Your task to perform on an android device: empty trash in the gmail app Image 0: 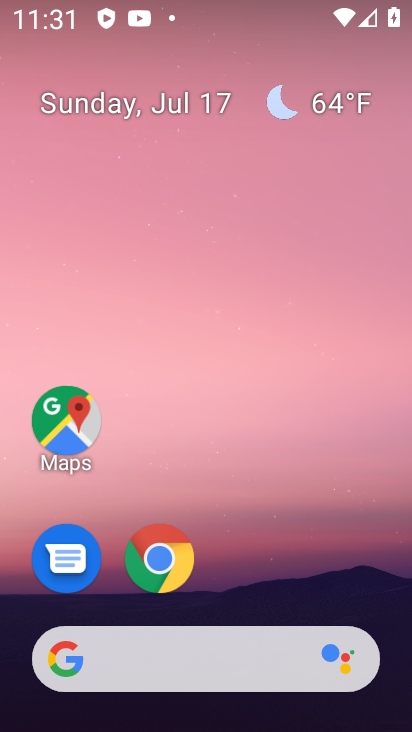
Step 0: drag from (360, 568) to (352, 85)
Your task to perform on an android device: empty trash in the gmail app Image 1: 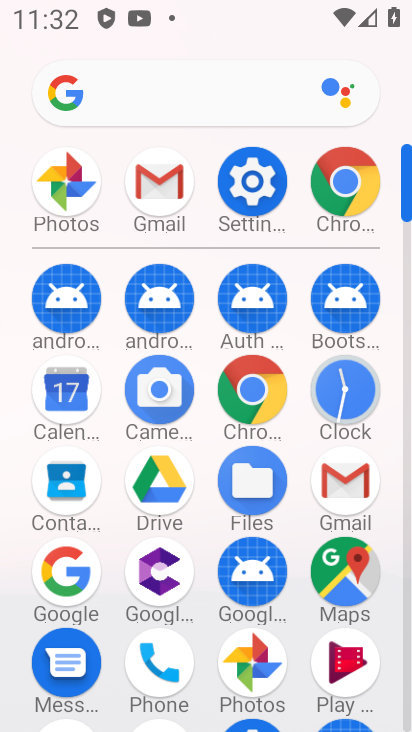
Step 1: click (344, 485)
Your task to perform on an android device: empty trash in the gmail app Image 2: 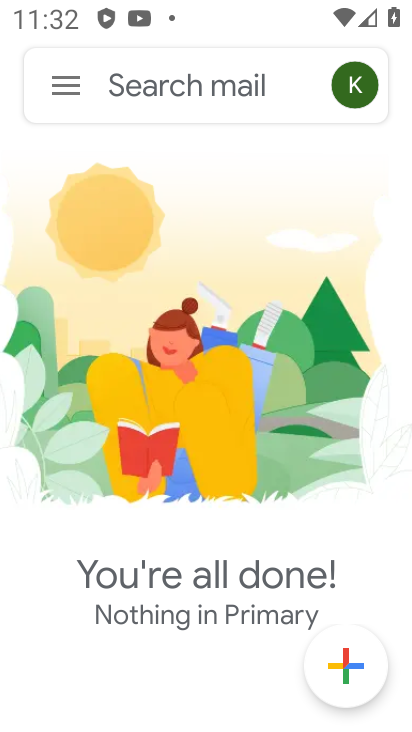
Step 2: click (70, 76)
Your task to perform on an android device: empty trash in the gmail app Image 3: 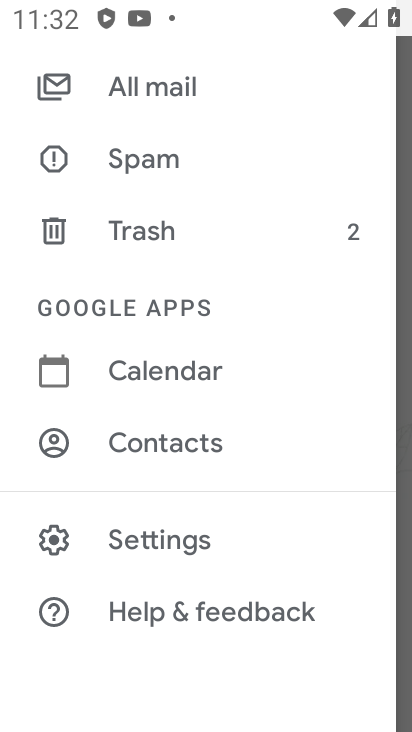
Step 3: drag from (277, 197) to (275, 303)
Your task to perform on an android device: empty trash in the gmail app Image 4: 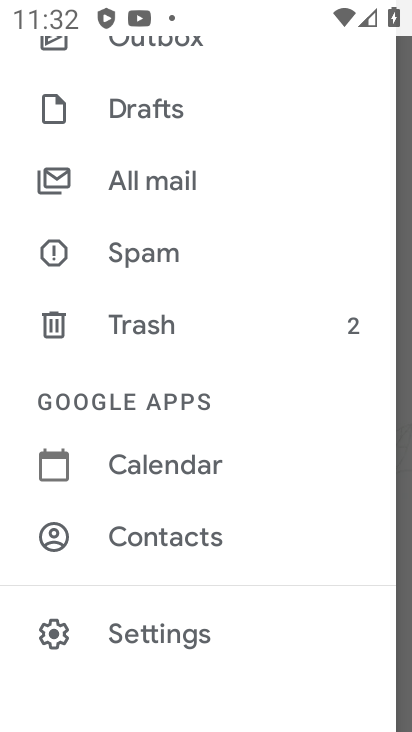
Step 4: drag from (280, 129) to (262, 289)
Your task to perform on an android device: empty trash in the gmail app Image 5: 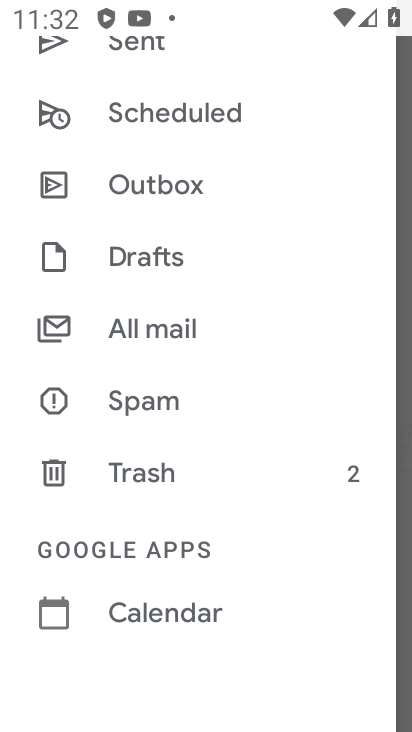
Step 5: drag from (288, 196) to (276, 303)
Your task to perform on an android device: empty trash in the gmail app Image 6: 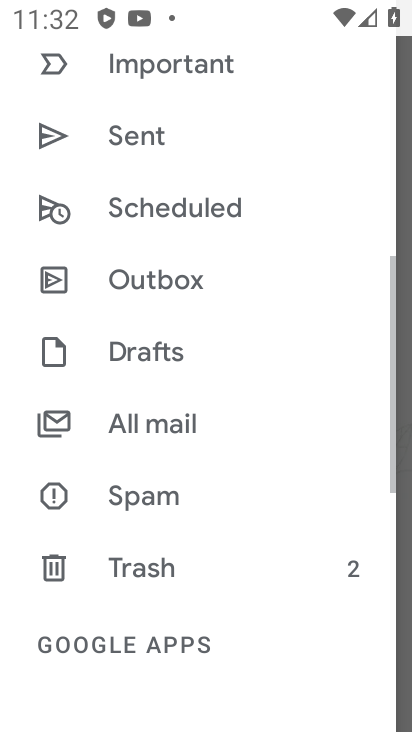
Step 6: drag from (273, 390) to (303, 199)
Your task to perform on an android device: empty trash in the gmail app Image 7: 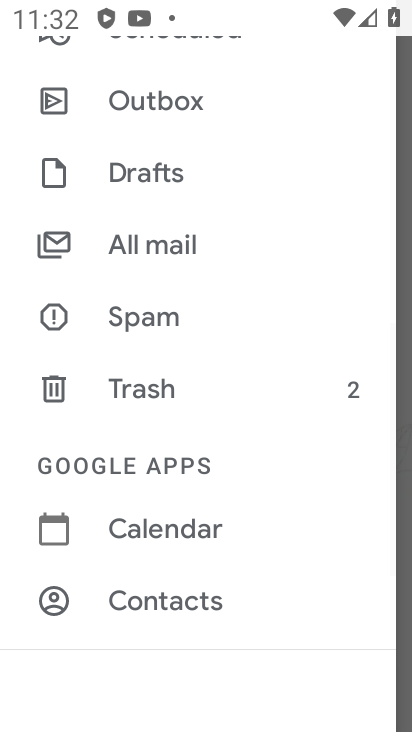
Step 7: drag from (284, 424) to (294, 180)
Your task to perform on an android device: empty trash in the gmail app Image 8: 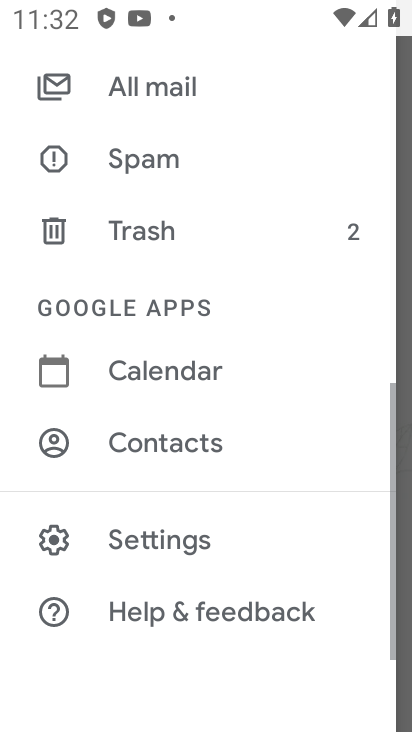
Step 8: click (209, 236)
Your task to perform on an android device: empty trash in the gmail app Image 9: 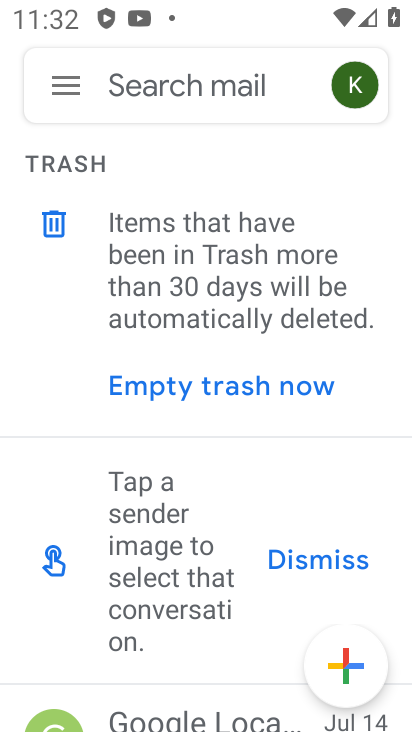
Step 9: task complete